Your task to perform on an android device: When is my next appointment? Image 0: 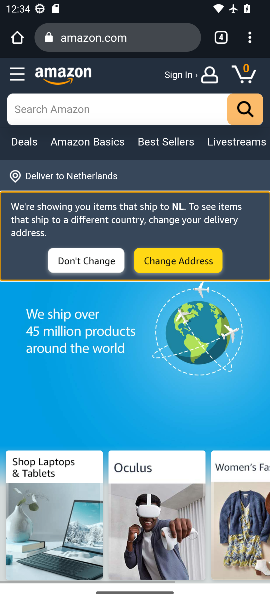
Step 0: press home button
Your task to perform on an android device: When is my next appointment? Image 1: 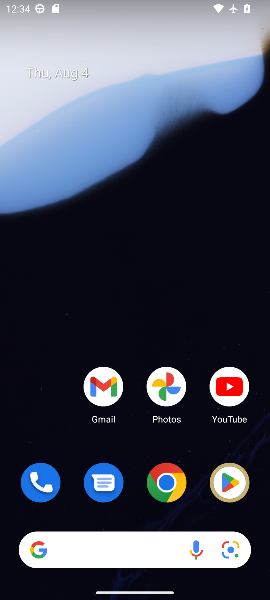
Step 1: drag from (137, 452) to (159, 116)
Your task to perform on an android device: When is my next appointment? Image 2: 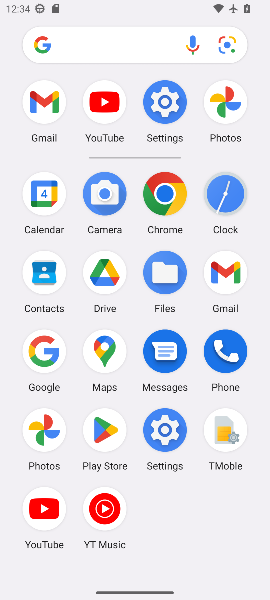
Step 2: click (44, 200)
Your task to perform on an android device: When is my next appointment? Image 3: 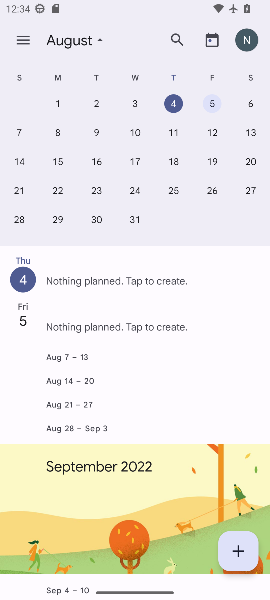
Step 3: click (203, 104)
Your task to perform on an android device: When is my next appointment? Image 4: 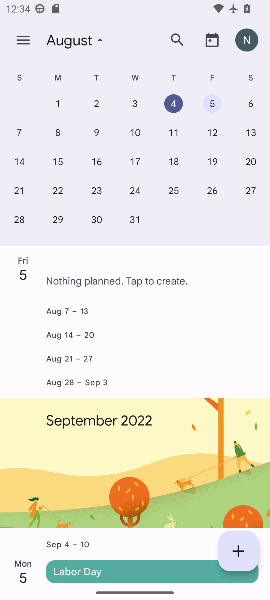
Step 4: click (226, 99)
Your task to perform on an android device: When is my next appointment? Image 5: 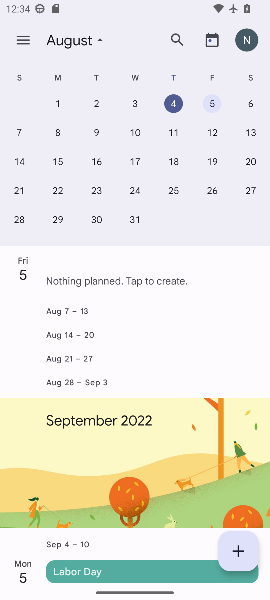
Step 5: click (244, 109)
Your task to perform on an android device: When is my next appointment? Image 6: 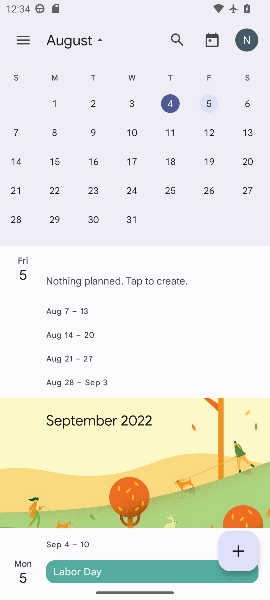
Step 6: click (80, 142)
Your task to perform on an android device: When is my next appointment? Image 7: 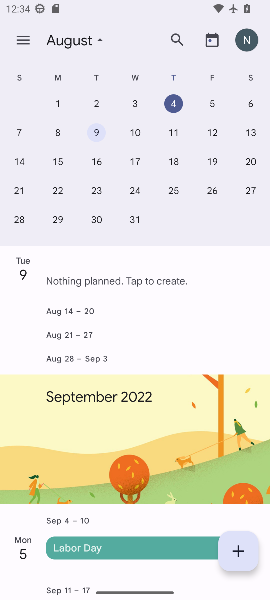
Step 7: task complete